Your task to perform on an android device: Go to Android settings Image 0: 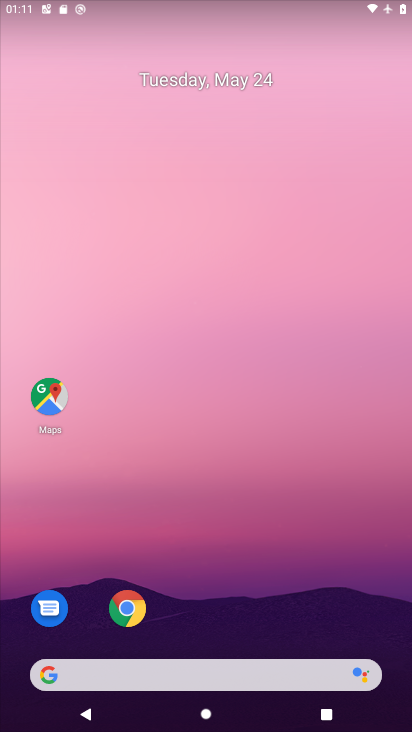
Step 0: drag from (202, 623) to (229, 56)
Your task to perform on an android device: Go to Android settings Image 1: 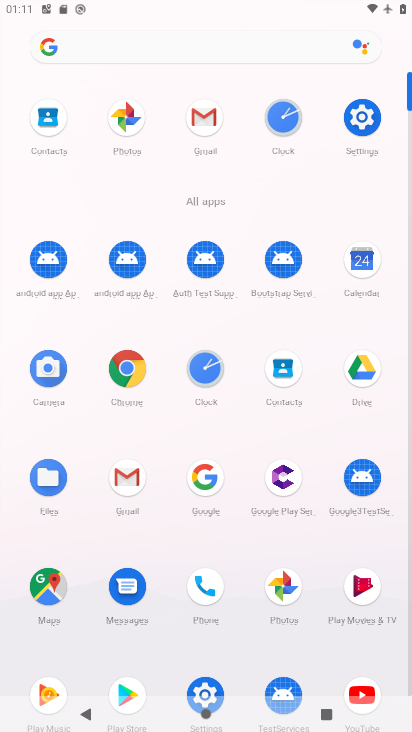
Step 1: click (360, 159)
Your task to perform on an android device: Go to Android settings Image 2: 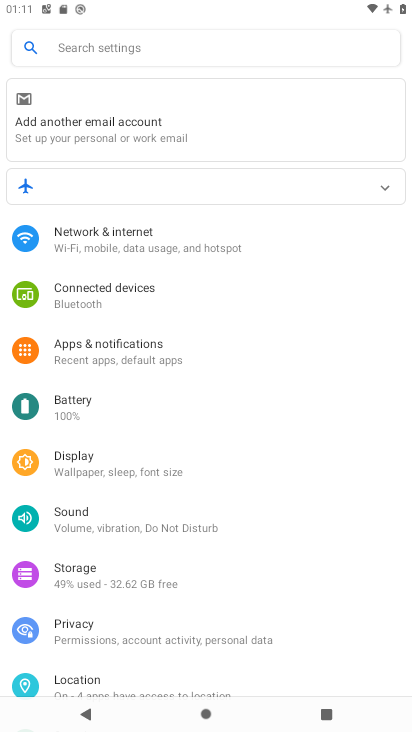
Step 2: task complete